Your task to perform on an android device: turn on data saver in the chrome app Image 0: 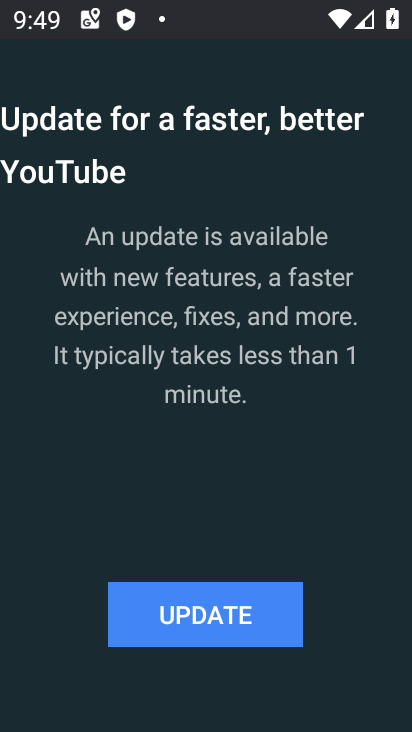
Step 0: press home button
Your task to perform on an android device: turn on data saver in the chrome app Image 1: 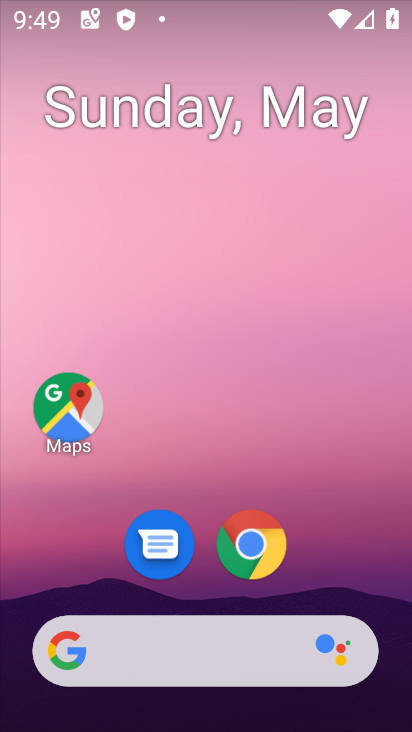
Step 1: drag from (338, 586) to (293, 0)
Your task to perform on an android device: turn on data saver in the chrome app Image 2: 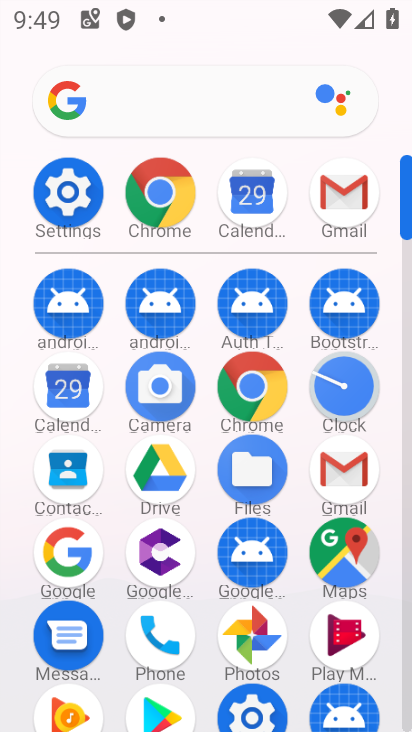
Step 2: click (155, 206)
Your task to perform on an android device: turn on data saver in the chrome app Image 3: 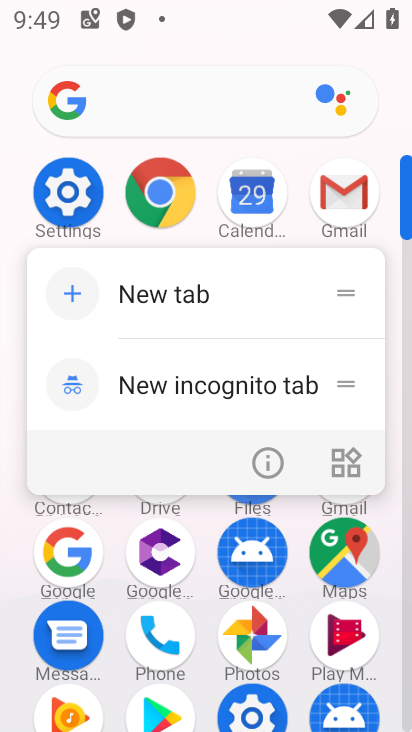
Step 3: click (155, 204)
Your task to perform on an android device: turn on data saver in the chrome app Image 4: 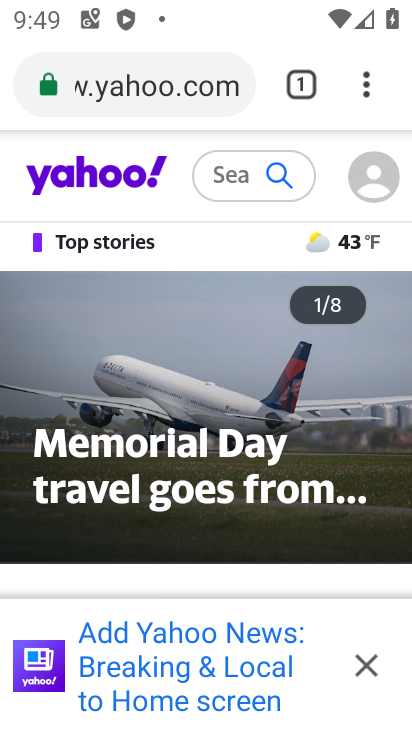
Step 4: drag from (366, 90) to (202, 594)
Your task to perform on an android device: turn on data saver in the chrome app Image 5: 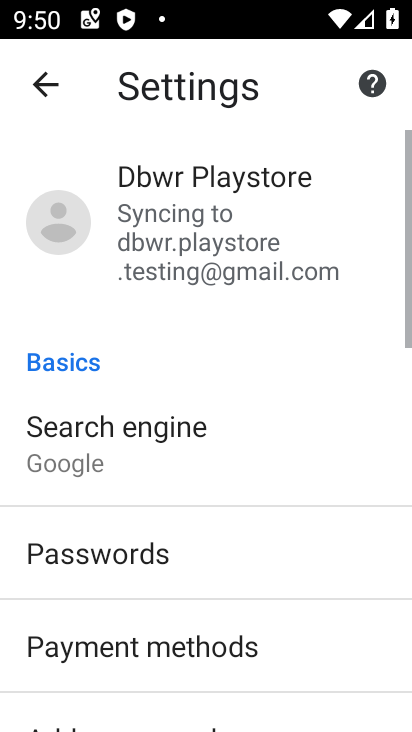
Step 5: drag from (228, 629) to (244, 91)
Your task to perform on an android device: turn on data saver in the chrome app Image 6: 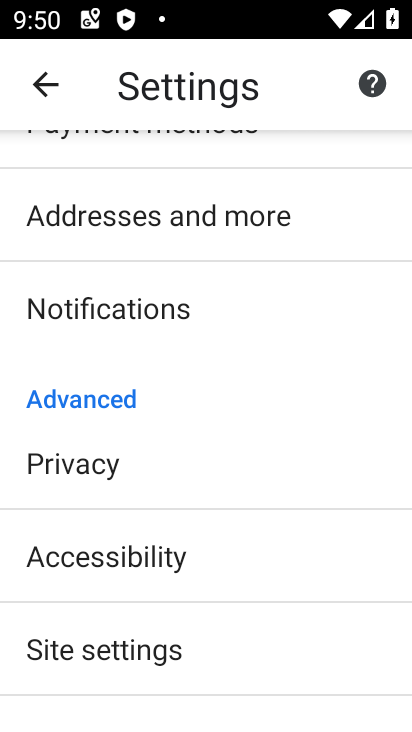
Step 6: drag from (288, 603) to (244, 120)
Your task to perform on an android device: turn on data saver in the chrome app Image 7: 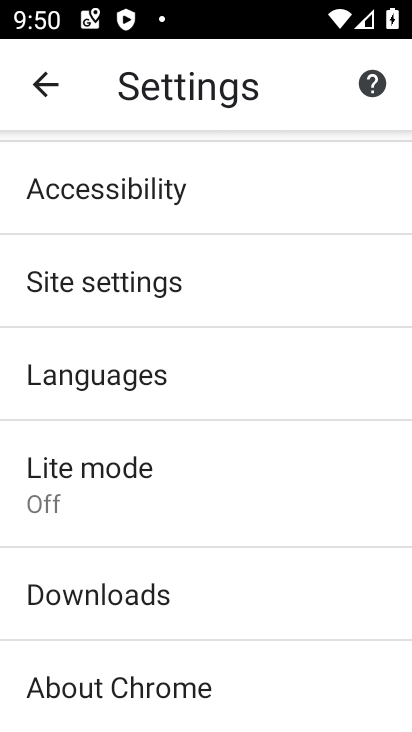
Step 7: click (193, 488)
Your task to perform on an android device: turn on data saver in the chrome app Image 8: 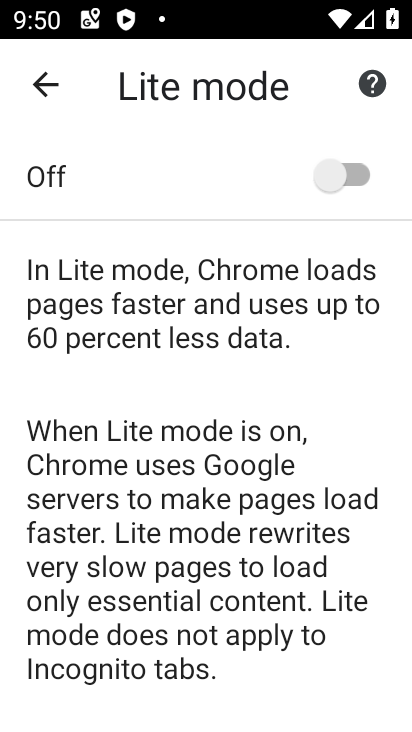
Step 8: click (336, 183)
Your task to perform on an android device: turn on data saver in the chrome app Image 9: 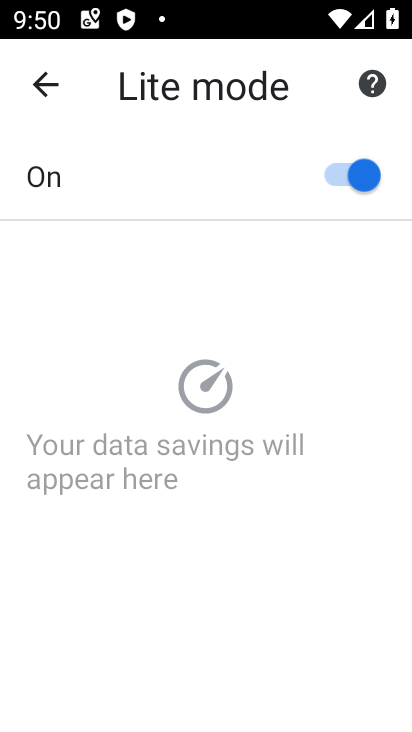
Step 9: task complete